Your task to perform on an android device: Show me popular games on the Play Store Image 0: 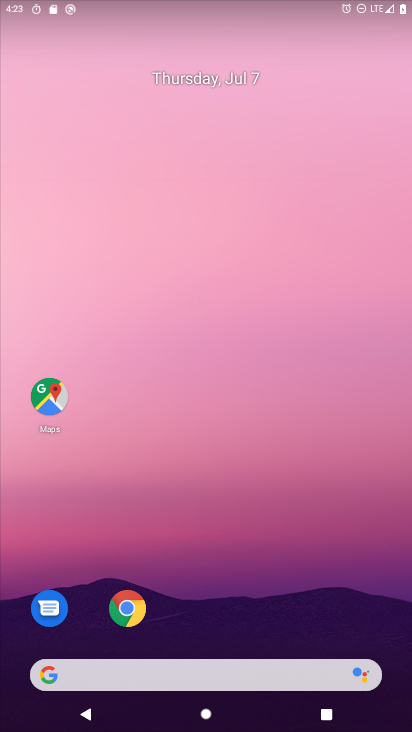
Step 0: drag from (267, 713) to (256, 635)
Your task to perform on an android device: Show me popular games on the Play Store Image 1: 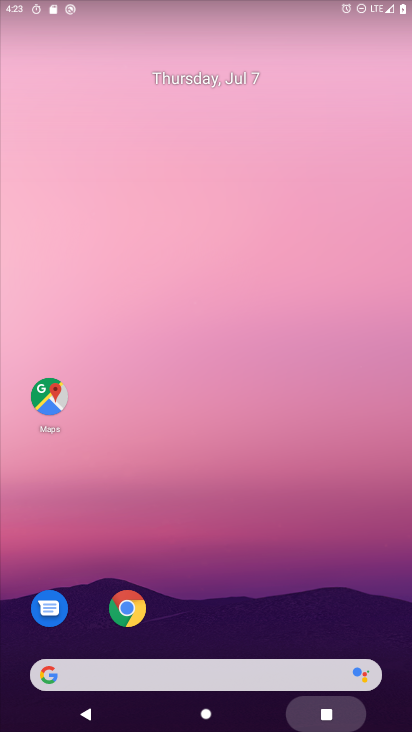
Step 1: drag from (226, 290) to (221, 134)
Your task to perform on an android device: Show me popular games on the Play Store Image 2: 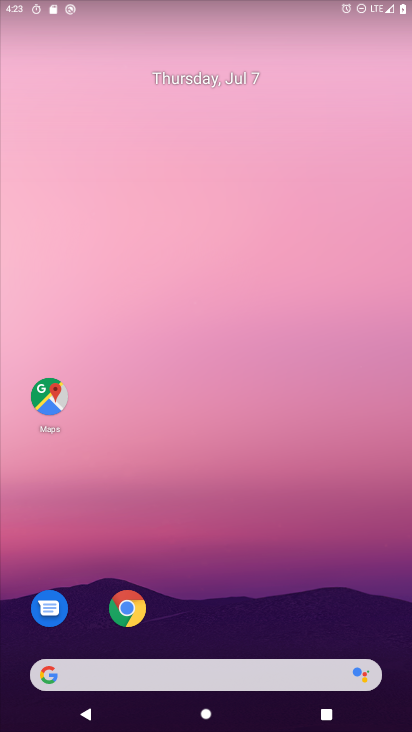
Step 2: drag from (255, 712) to (248, 674)
Your task to perform on an android device: Show me popular games on the Play Store Image 3: 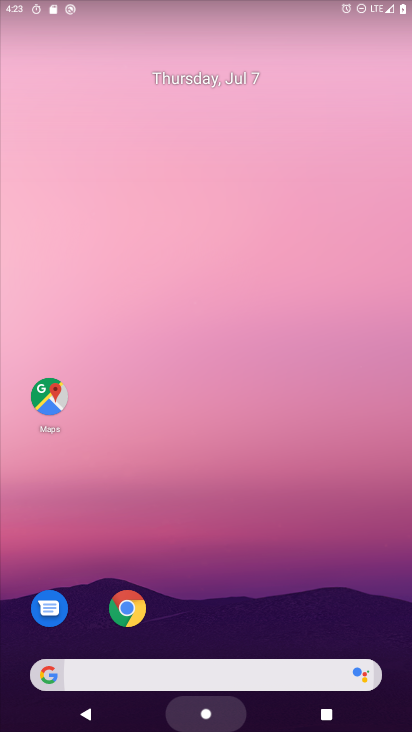
Step 3: click (210, 146)
Your task to perform on an android device: Show me popular games on the Play Store Image 4: 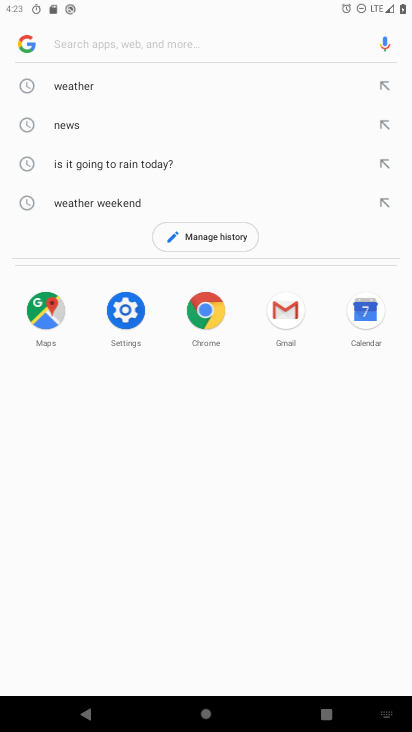
Step 4: press home button
Your task to perform on an android device: Show me popular games on the Play Store Image 5: 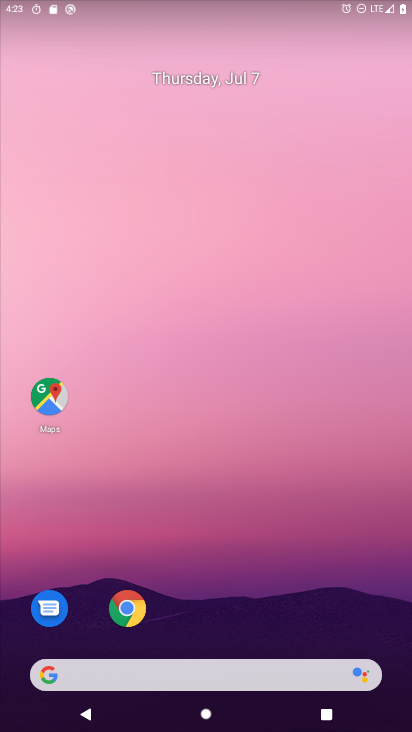
Step 5: drag from (235, 708) to (217, 80)
Your task to perform on an android device: Show me popular games on the Play Store Image 6: 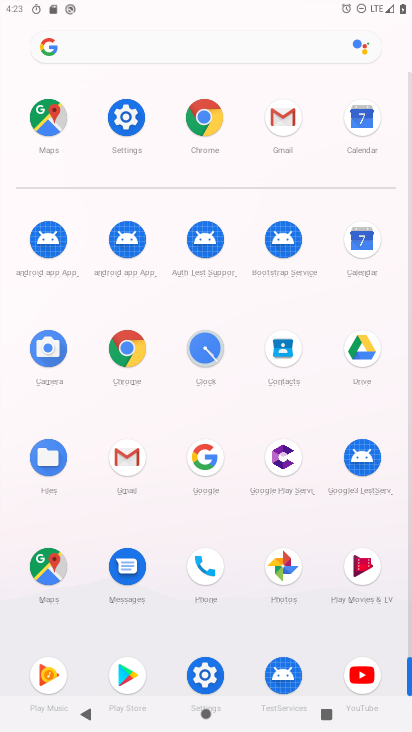
Step 6: click (121, 673)
Your task to perform on an android device: Show me popular games on the Play Store Image 7: 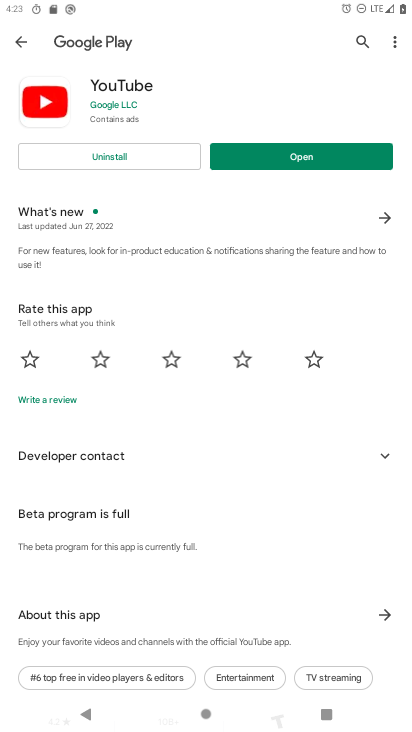
Step 7: click (20, 38)
Your task to perform on an android device: Show me popular games on the Play Store Image 8: 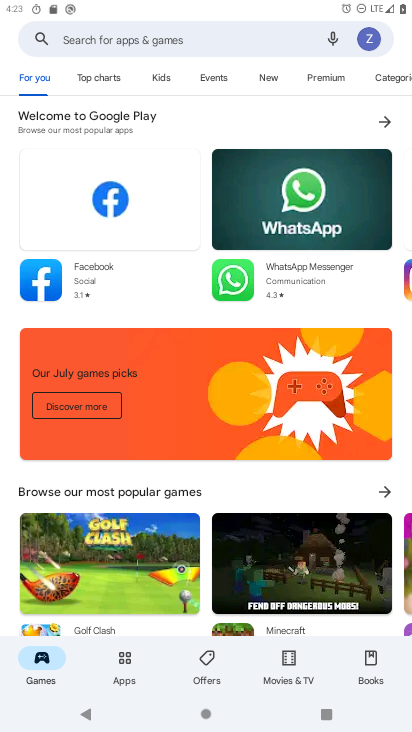
Step 8: click (382, 489)
Your task to perform on an android device: Show me popular games on the Play Store Image 9: 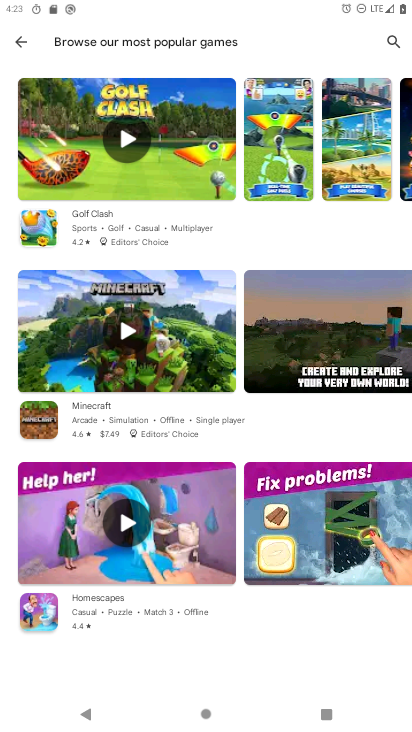
Step 9: task complete